Your task to perform on an android device: Open display settings Image 0: 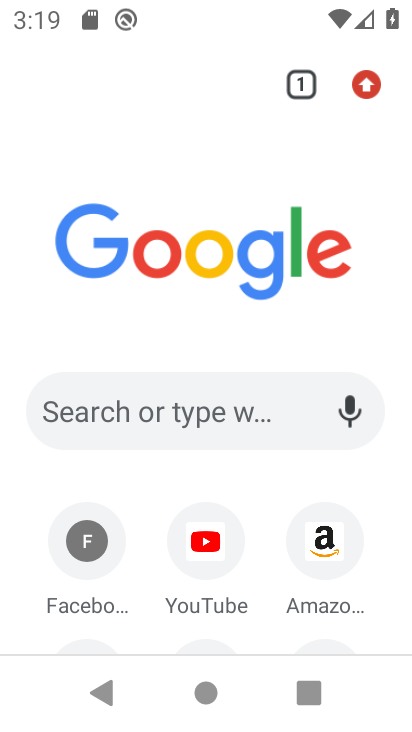
Step 0: press home button
Your task to perform on an android device: Open display settings Image 1: 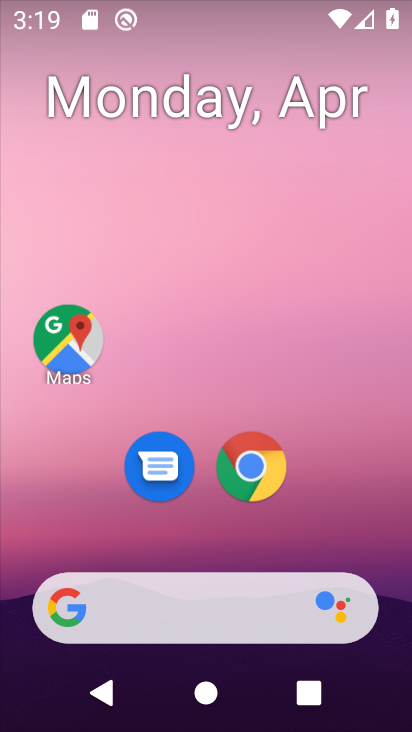
Step 1: drag from (277, 517) to (238, 123)
Your task to perform on an android device: Open display settings Image 2: 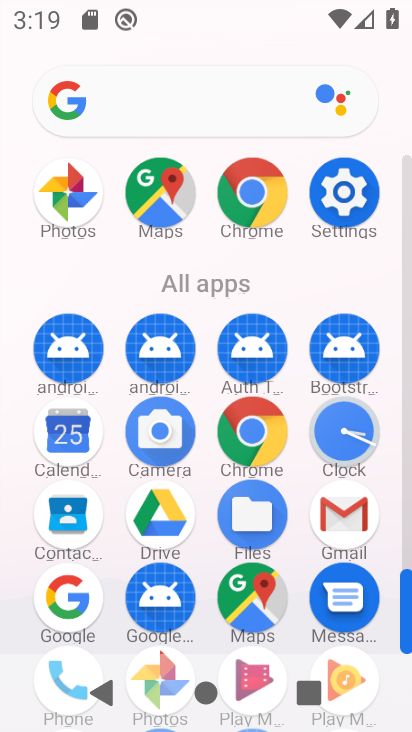
Step 2: click (349, 202)
Your task to perform on an android device: Open display settings Image 3: 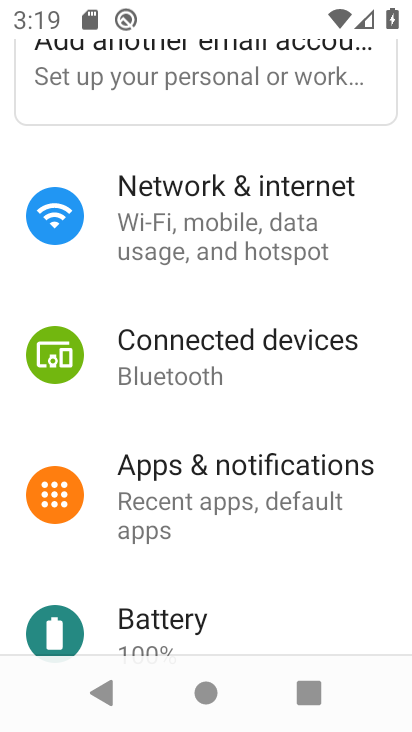
Step 3: drag from (245, 522) to (238, 217)
Your task to perform on an android device: Open display settings Image 4: 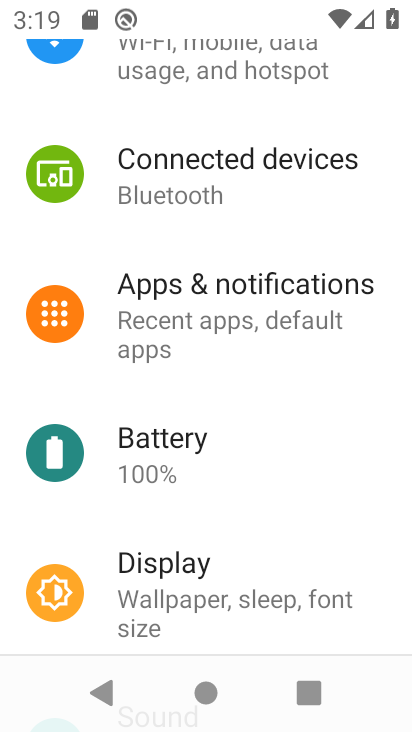
Step 4: click (223, 582)
Your task to perform on an android device: Open display settings Image 5: 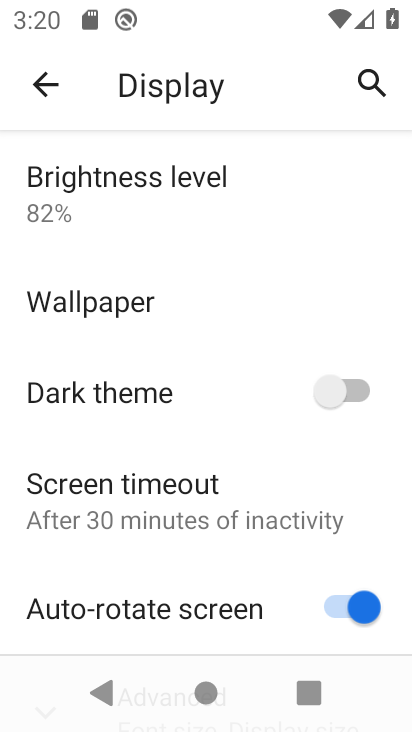
Step 5: task complete